Your task to perform on an android device: change text size in settings app Image 0: 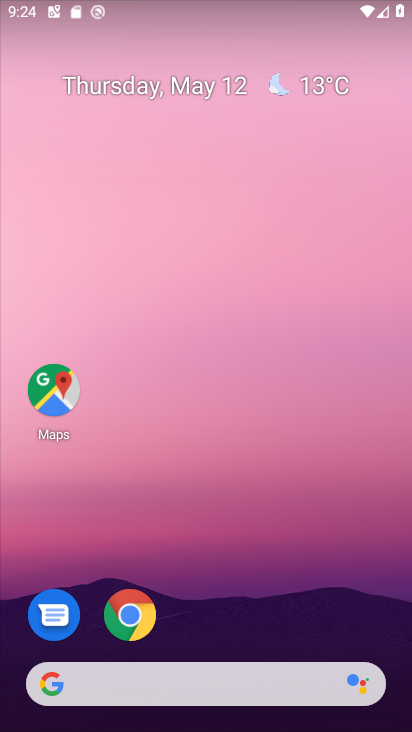
Step 0: drag from (281, 562) to (171, 49)
Your task to perform on an android device: change text size in settings app Image 1: 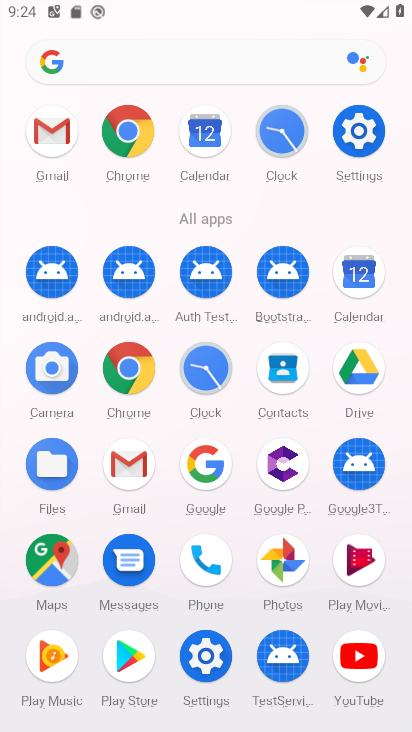
Step 1: click (359, 126)
Your task to perform on an android device: change text size in settings app Image 2: 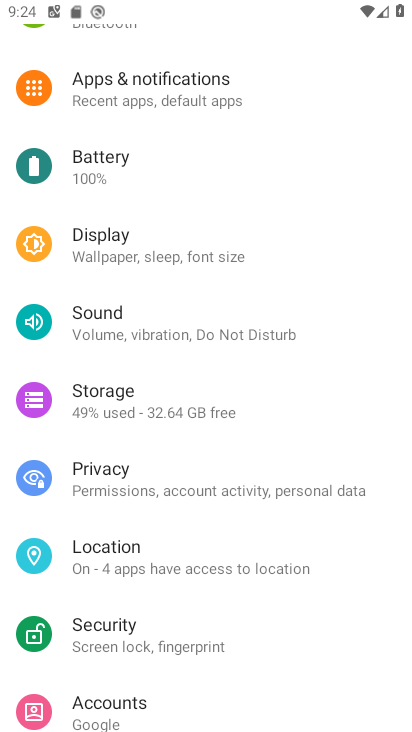
Step 2: drag from (198, 618) to (153, 240)
Your task to perform on an android device: change text size in settings app Image 3: 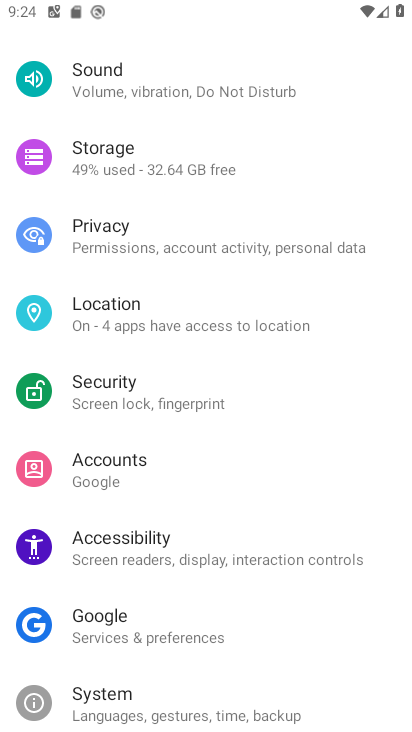
Step 3: drag from (208, 257) to (270, 717)
Your task to perform on an android device: change text size in settings app Image 4: 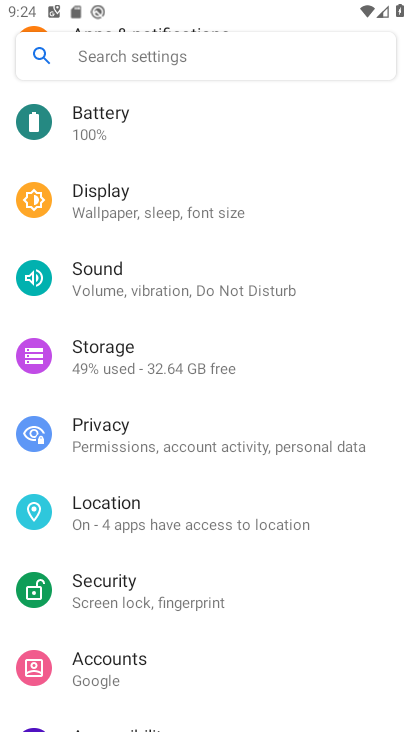
Step 4: click (99, 206)
Your task to perform on an android device: change text size in settings app Image 5: 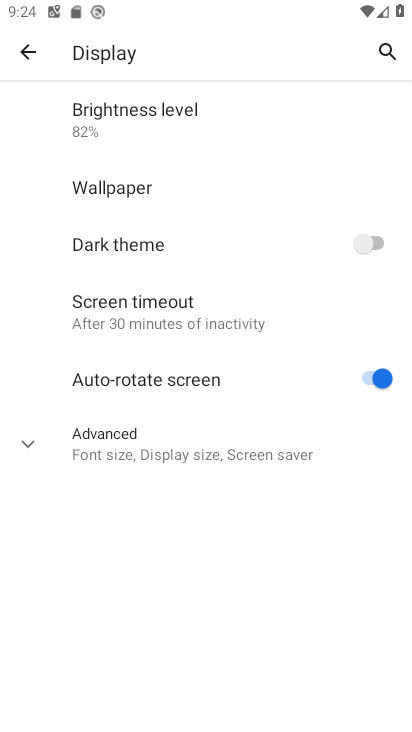
Step 5: click (113, 435)
Your task to perform on an android device: change text size in settings app Image 6: 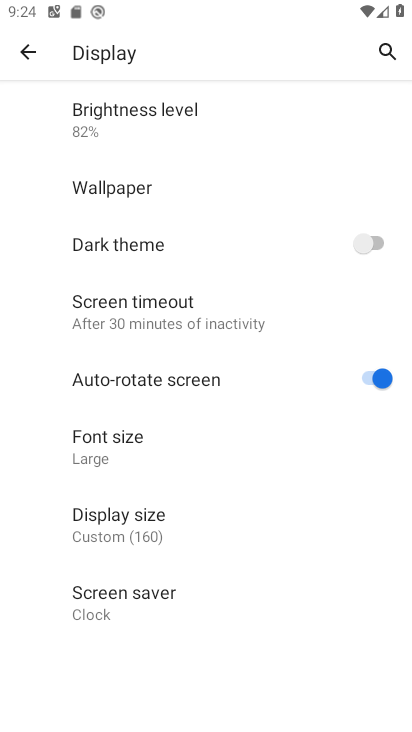
Step 6: click (113, 436)
Your task to perform on an android device: change text size in settings app Image 7: 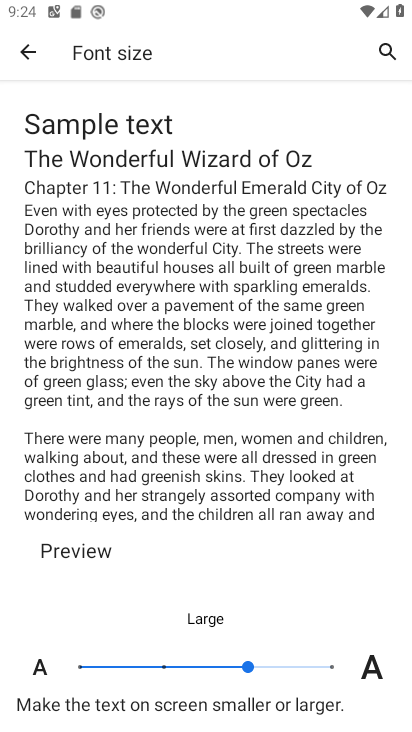
Step 7: click (171, 670)
Your task to perform on an android device: change text size in settings app Image 8: 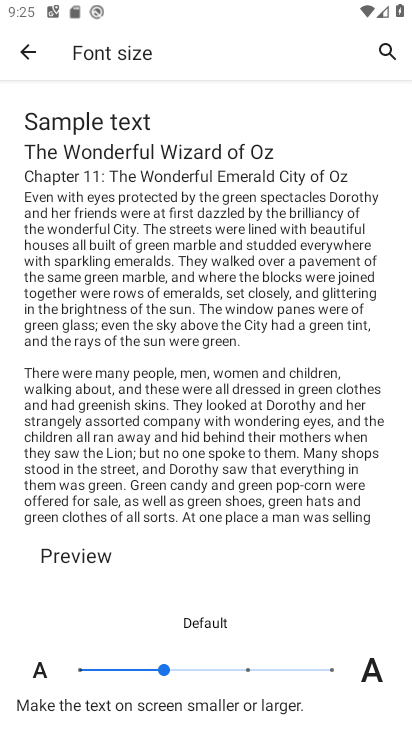
Step 8: task complete